Your task to perform on an android device: star an email in the gmail app Image 0: 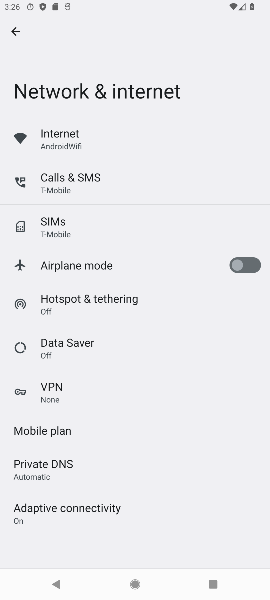
Step 0: press home button
Your task to perform on an android device: star an email in the gmail app Image 1: 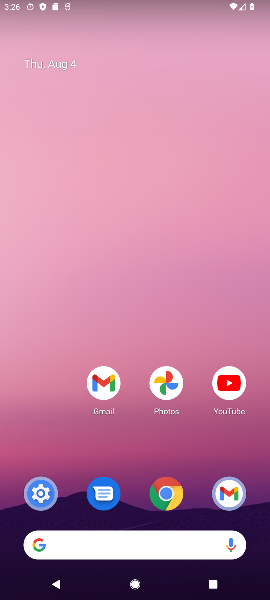
Step 1: click (100, 376)
Your task to perform on an android device: star an email in the gmail app Image 2: 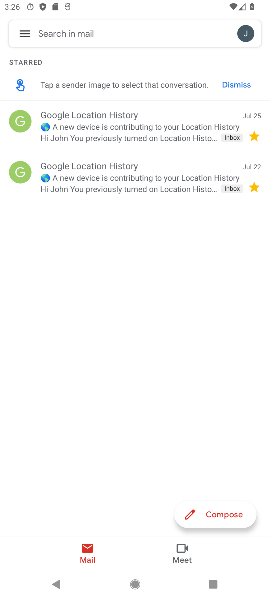
Step 2: click (27, 29)
Your task to perform on an android device: star an email in the gmail app Image 3: 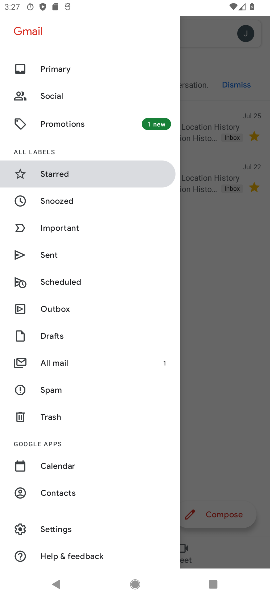
Step 3: click (46, 171)
Your task to perform on an android device: star an email in the gmail app Image 4: 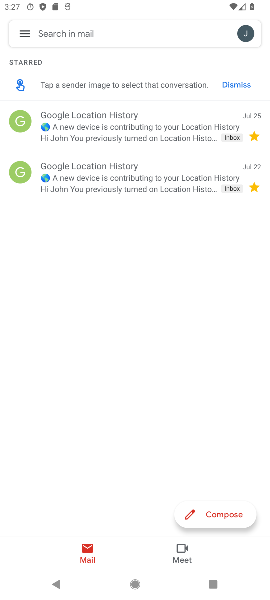
Step 4: task complete